Your task to perform on an android device: read, delete, or share a saved page in the chrome app Image 0: 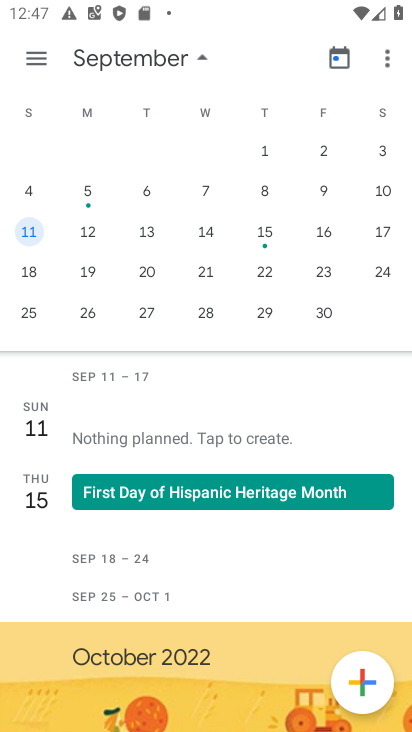
Step 0: press home button
Your task to perform on an android device: read, delete, or share a saved page in the chrome app Image 1: 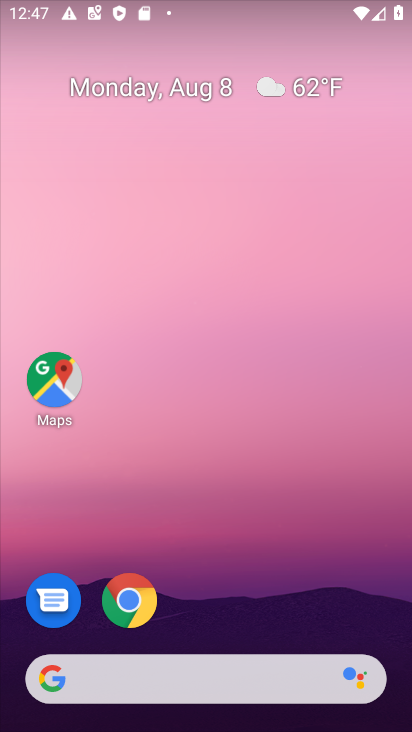
Step 1: click (132, 592)
Your task to perform on an android device: read, delete, or share a saved page in the chrome app Image 2: 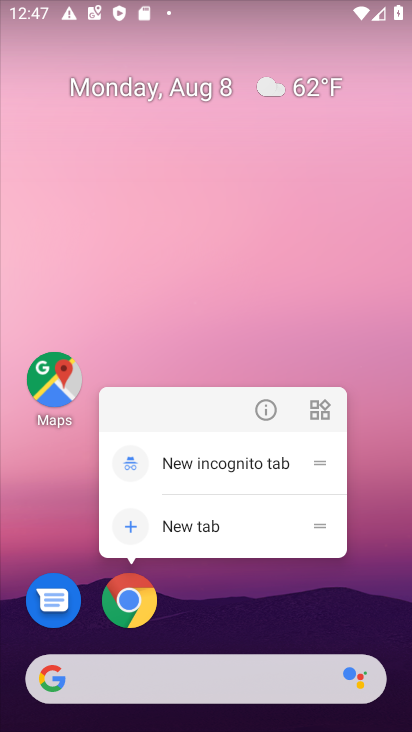
Step 2: click (118, 610)
Your task to perform on an android device: read, delete, or share a saved page in the chrome app Image 3: 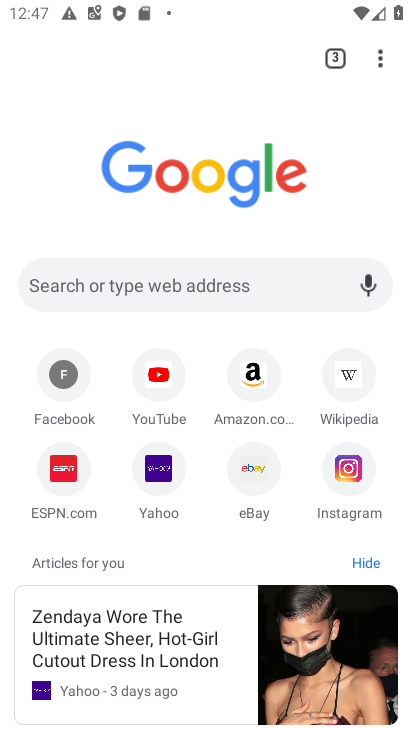
Step 3: click (379, 57)
Your task to perform on an android device: read, delete, or share a saved page in the chrome app Image 4: 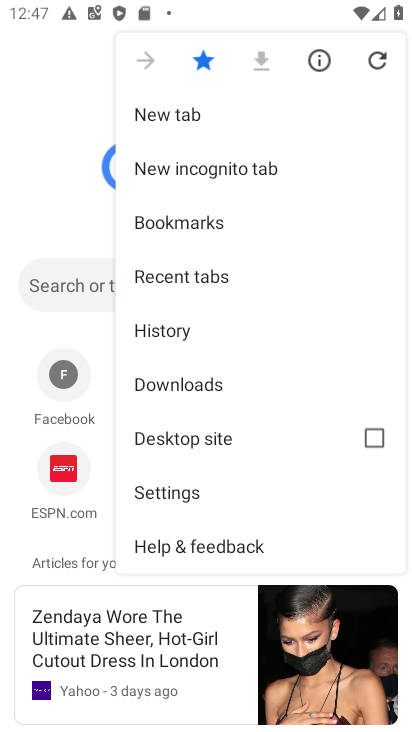
Step 4: click (190, 491)
Your task to perform on an android device: read, delete, or share a saved page in the chrome app Image 5: 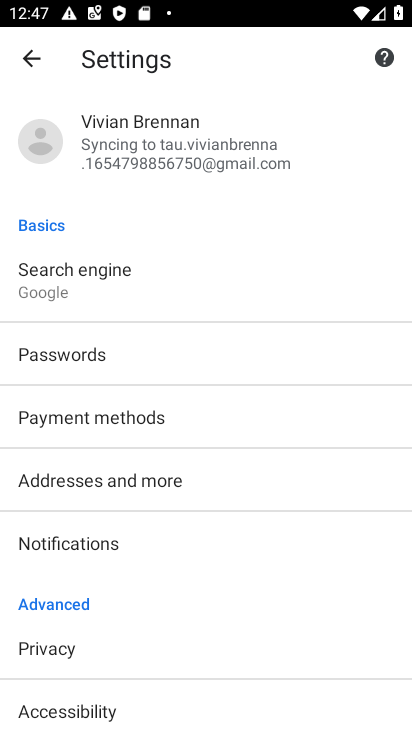
Step 5: click (30, 52)
Your task to perform on an android device: read, delete, or share a saved page in the chrome app Image 6: 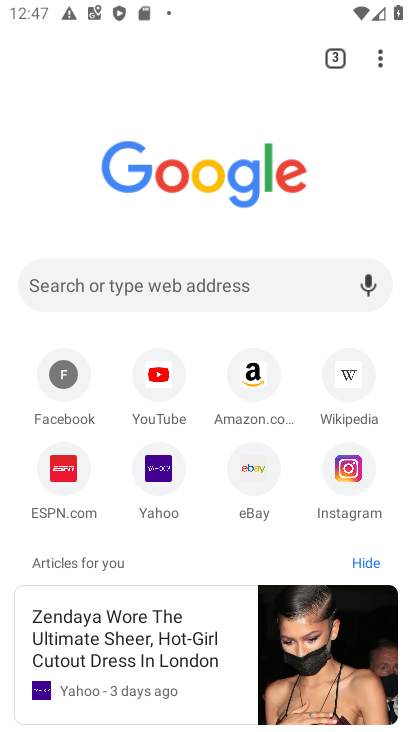
Step 6: click (385, 62)
Your task to perform on an android device: read, delete, or share a saved page in the chrome app Image 7: 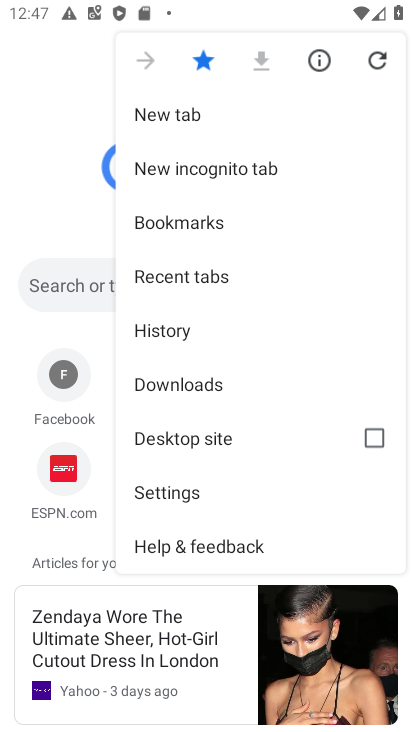
Step 7: click (195, 382)
Your task to perform on an android device: read, delete, or share a saved page in the chrome app Image 8: 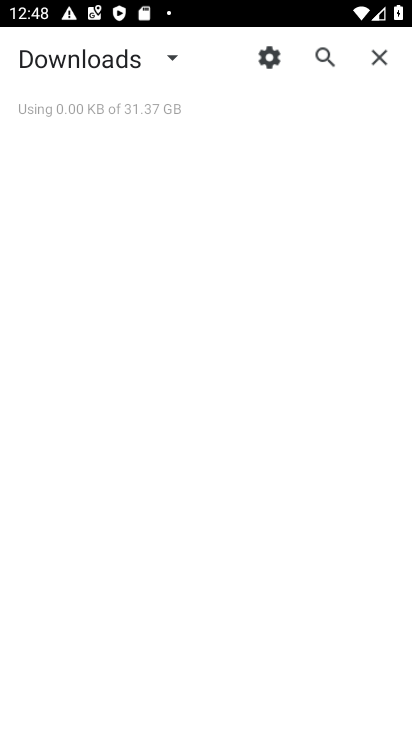
Step 8: task complete